Your task to perform on an android device: turn on bluetooth scan Image 0: 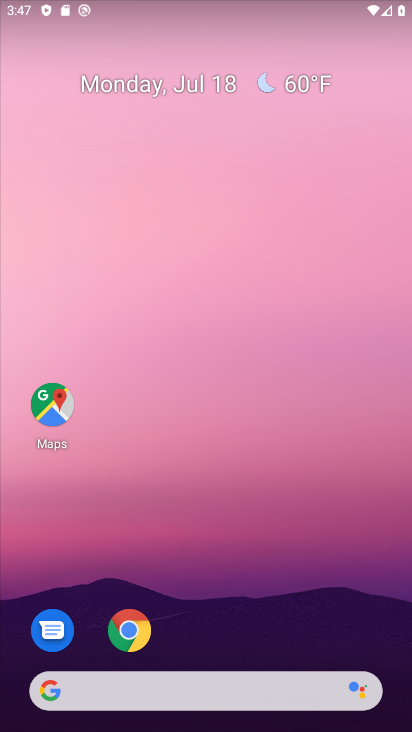
Step 0: press home button
Your task to perform on an android device: turn on bluetooth scan Image 1: 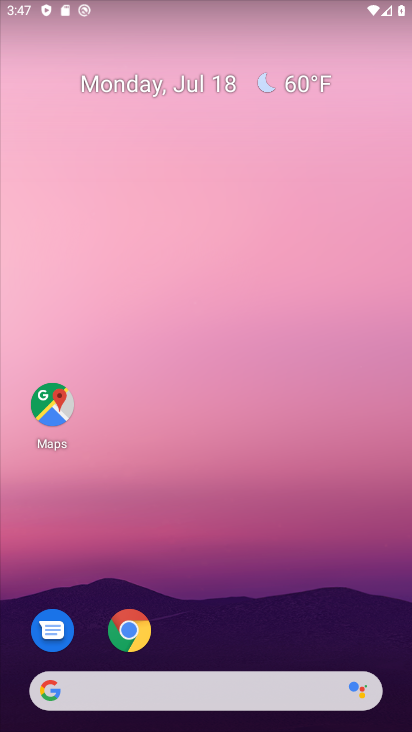
Step 1: click (131, 620)
Your task to perform on an android device: turn on bluetooth scan Image 2: 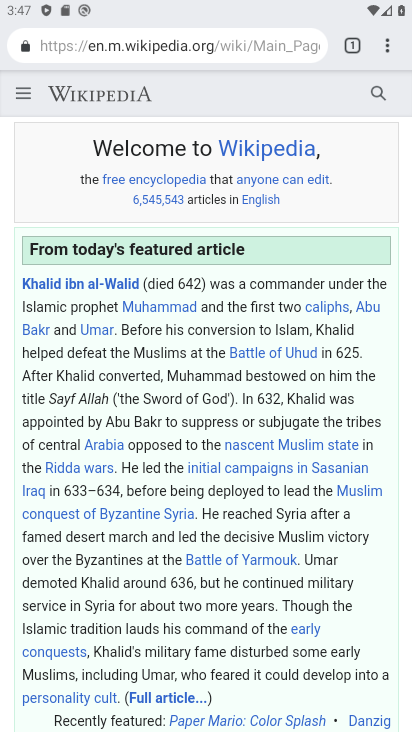
Step 2: click (283, 51)
Your task to perform on an android device: turn on bluetooth scan Image 3: 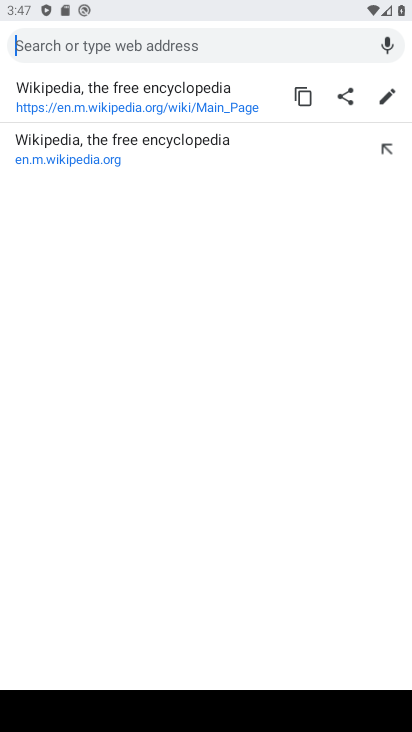
Step 3: type "espn"
Your task to perform on an android device: turn on bluetooth scan Image 4: 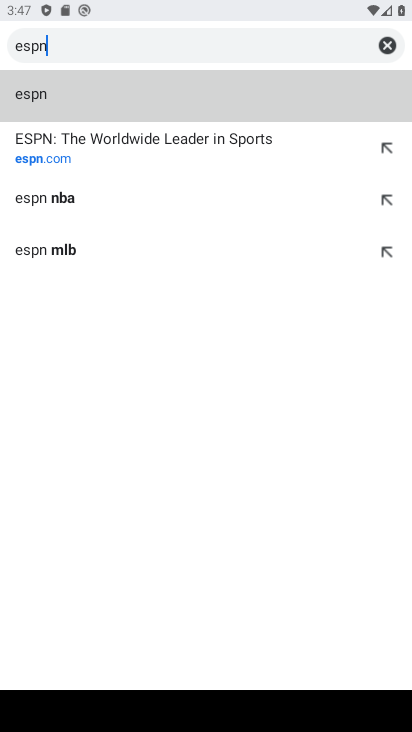
Step 4: click (159, 124)
Your task to perform on an android device: turn on bluetooth scan Image 5: 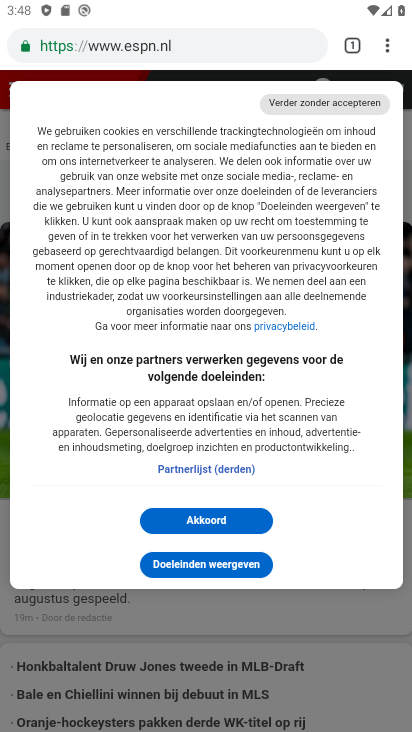
Step 5: click (210, 516)
Your task to perform on an android device: turn on bluetooth scan Image 6: 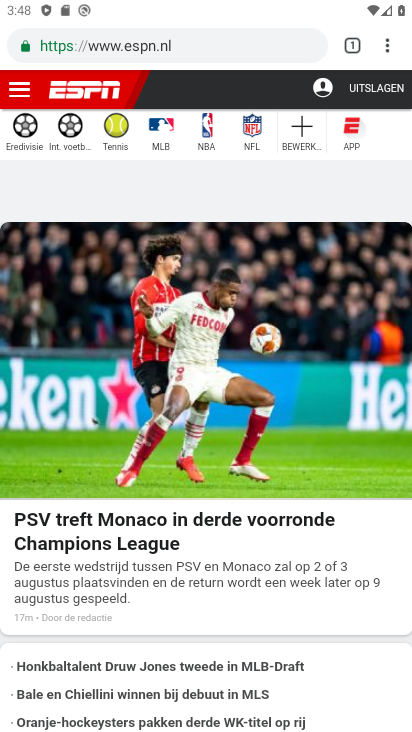
Step 6: task complete